Your task to perform on an android device: turn off priority inbox in the gmail app Image 0: 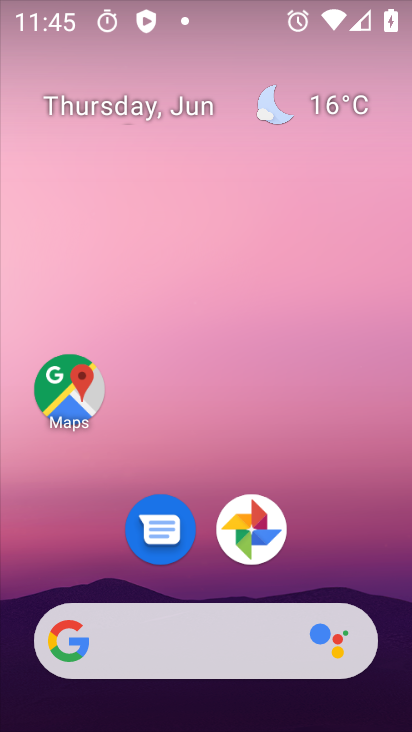
Step 0: drag from (218, 242) to (218, 167)
Your task to perform on an android device: turn off priority inbox in the gmail app Image 1: 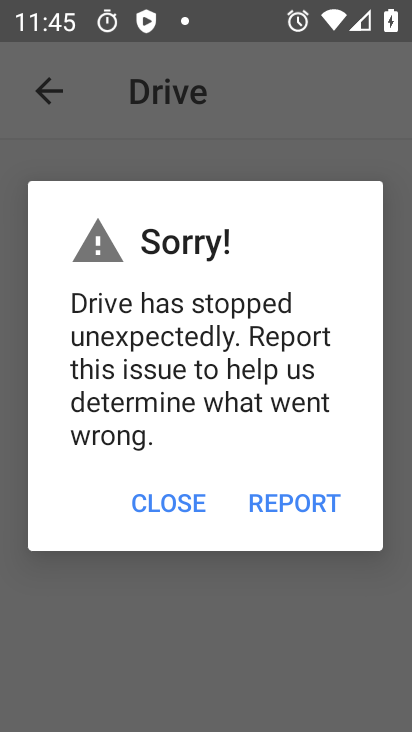
Step 1: click (173, 508)
Your task to perform on an android device: turn off priority inbox in the gmail app Image 2: 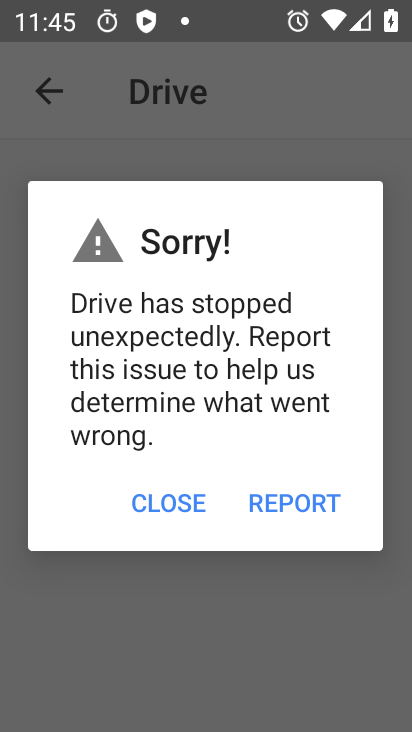
Step 2: click (181, 506)
Your task to perform on an android device: turn off priority inbox in the gmail app Image 3: 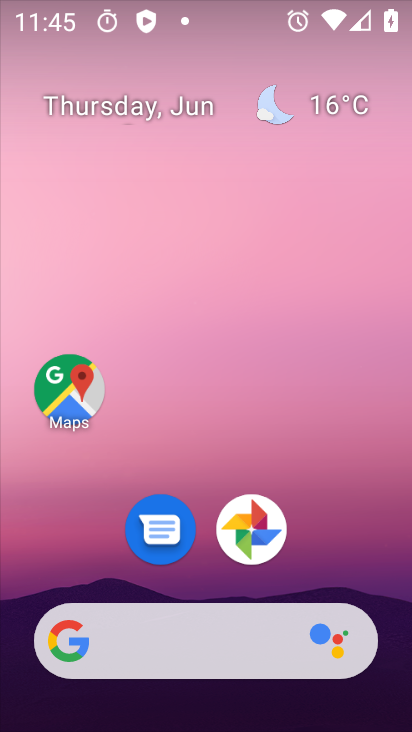
Step 3: drag from (208, 450) to (196, 148)
Your task to perform on an android device: turn off priority inbox in the gmail app Image 4: 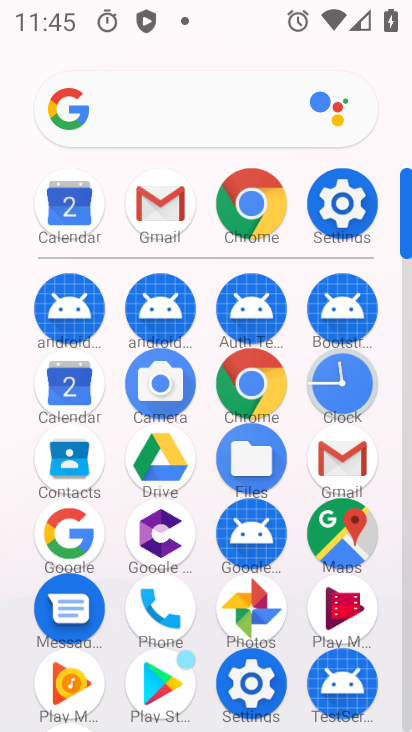
Step 4: click (356, 476)
Your task to perform on an android device: turn off priority inbox in the gmail app Image 5: 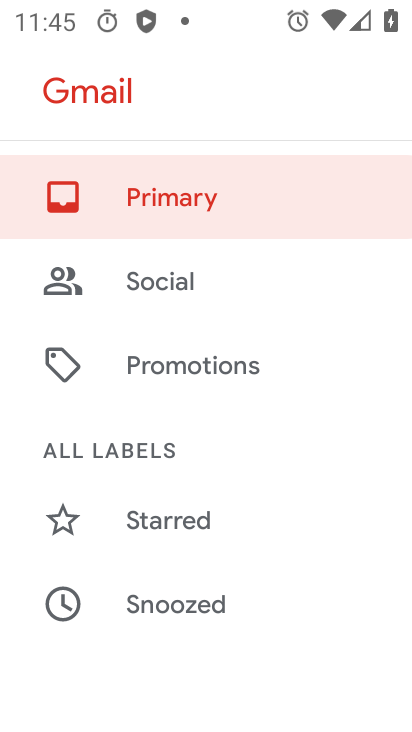
Step 5: drag from (208, 574) to (189, 183)
Your task to perform on an android device: turn off priority inbox in the gmail app Image 6: 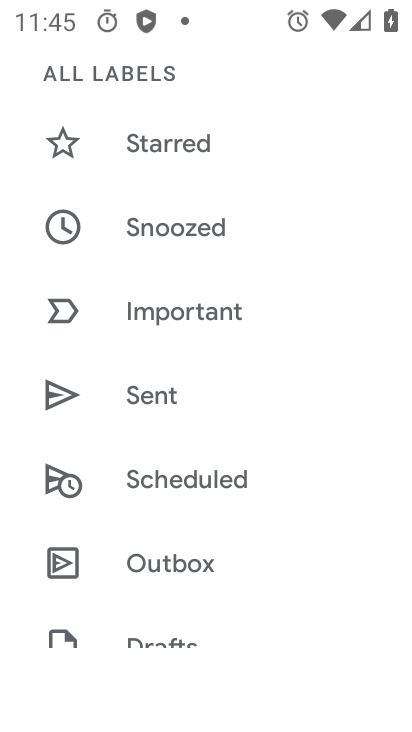
Step 6: drag from (265, 466) to (271, 213)
Your task to perform on an android device: turn off priority inbox in the gmail app Image 7: 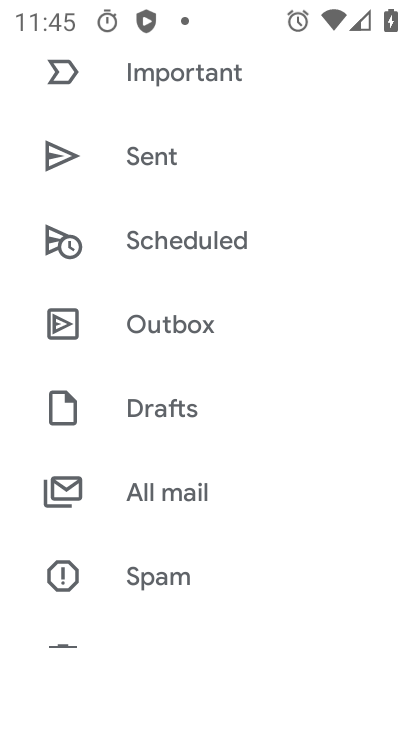
Step 7: drag from (292, 414) to (258, 160)
Your task to perform on an android device: turn off priority inbox in the gmail app Image 8: 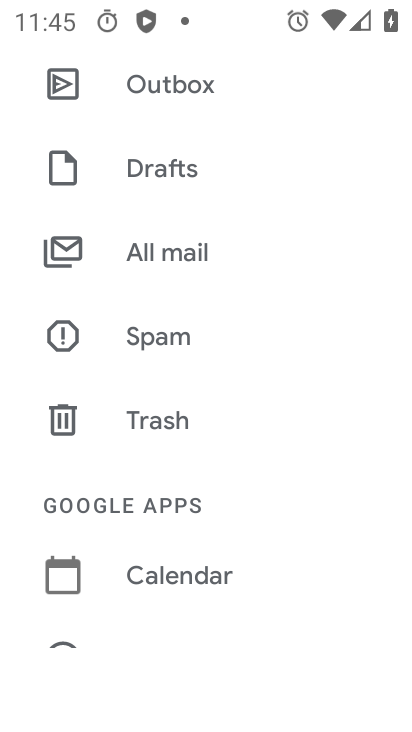
Step 8: drag from (249, 143) to (248, 199)
Your task to perform on an android device: turn off priority inbox in the gmail app Image 9: 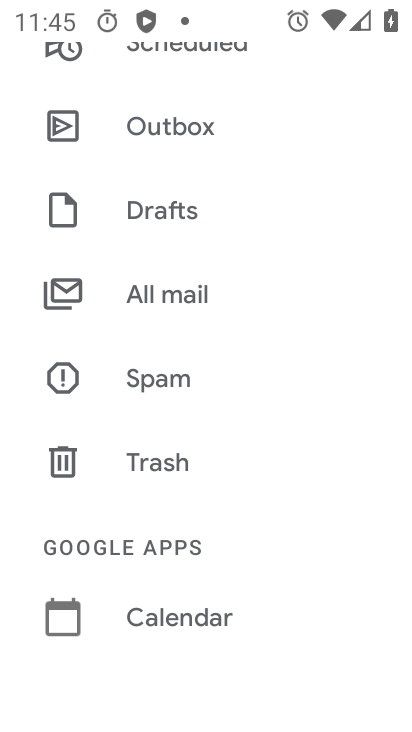
Step 9: drag from (236, 563) to (211, 158)
Your task to perform on an android device: turn off priority inbox in the gmail app Image 10: 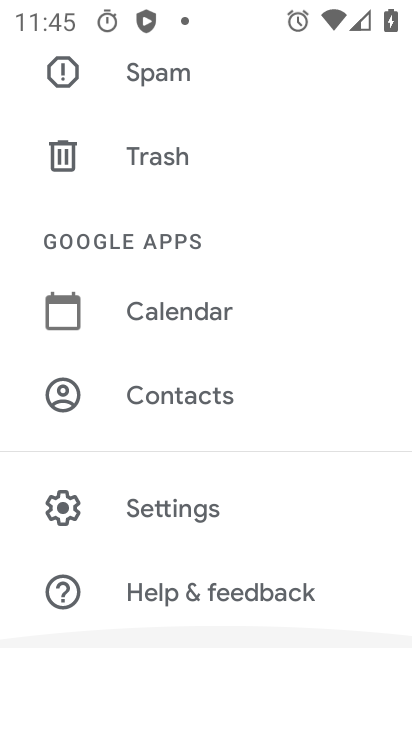
Step 10: drag from (190, 509) to (240, 223)
Your task to perform on an android device: turn off priority inbox in the gmail app Image 11: 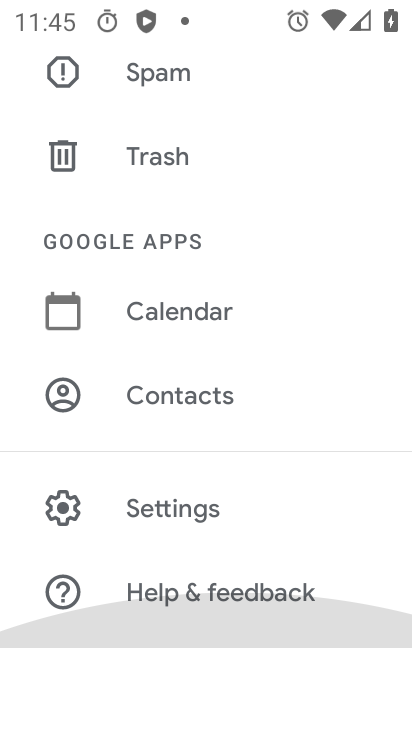
Step 11: drag from (235, 396) to (203, 190)
Your task to perform on an android device: turn off priority inbox in the gmail app Image 12: 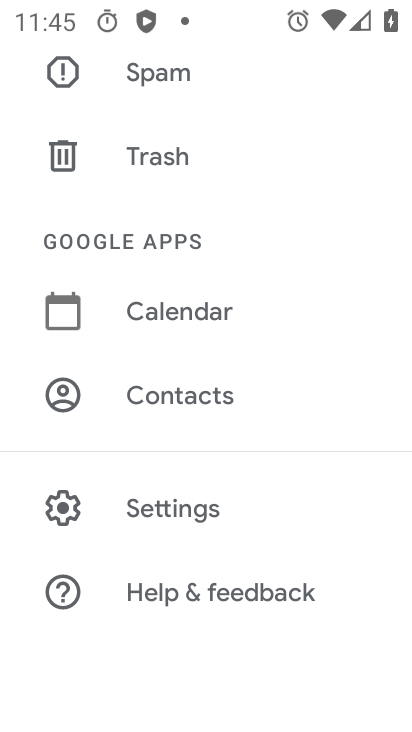
Step 12: click (171, 506)
Your task to perform on an android device: turn off priority inbox in the gmail app Image 13: 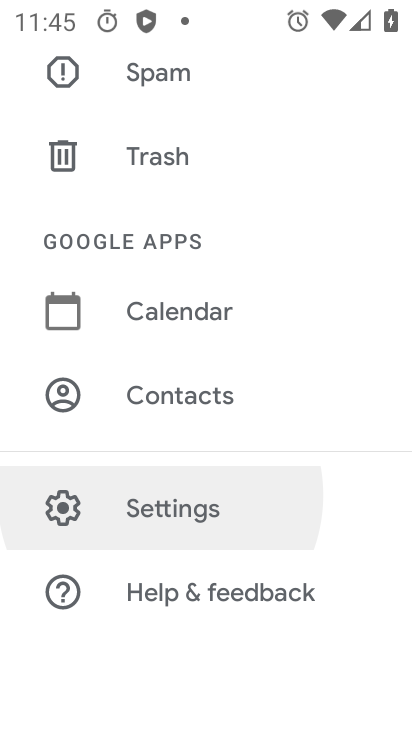
Step 13: click (171, 509)
Your task to perform on an android device: turn off priority inbox in the gmail app Image 14: 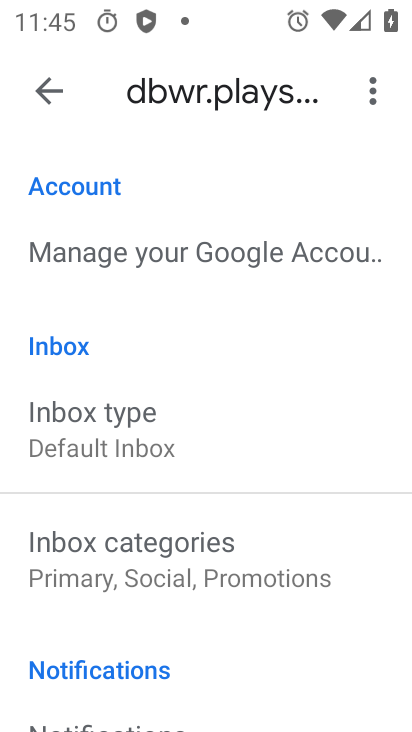
Step 14: click (84, 428)
Your task to perform on an android device: turn off priority inbox in the gmail app Image 15: 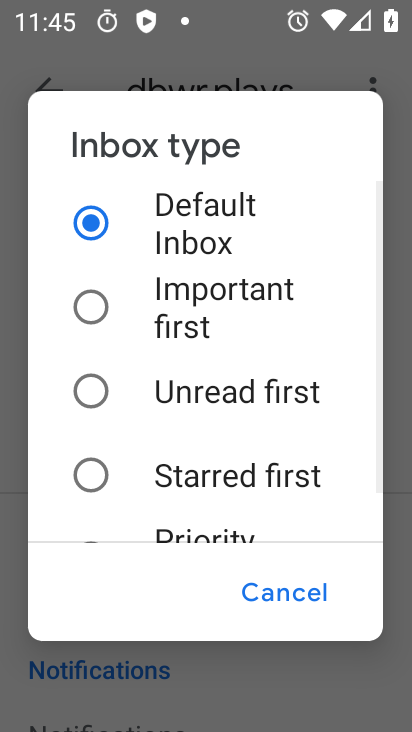
Step 15: click (312, 584)
Your task to perform on an android device: turn off priority inbox in the gmail app Image 16: 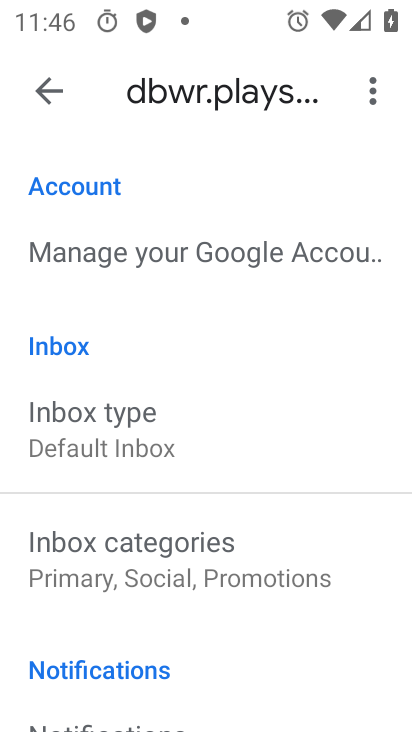
Step 16: task complete